Your task to perform on an android device: turn off data saver in the chrome app Image 0: 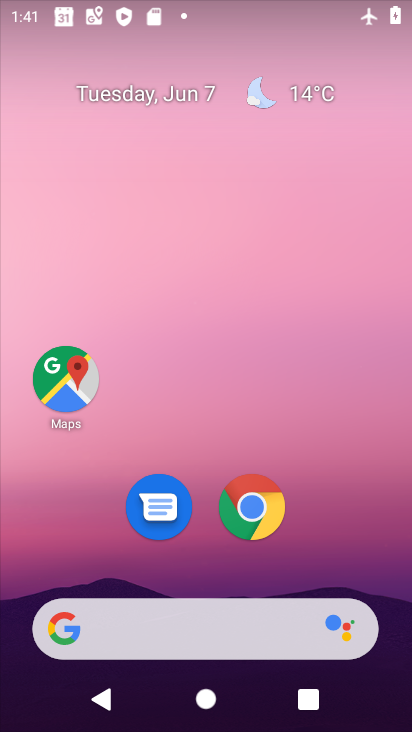
Step 0: click (257, 510)
Your task to perform on an android device: turn off data saver in the chrome app Image 1: 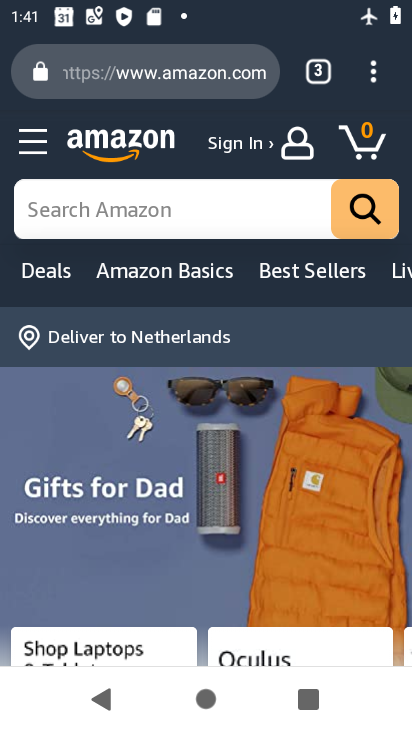
Step 1: click (371, 73)
Your task to perform on an android device: turn off data saver in the chrome app Image 2: 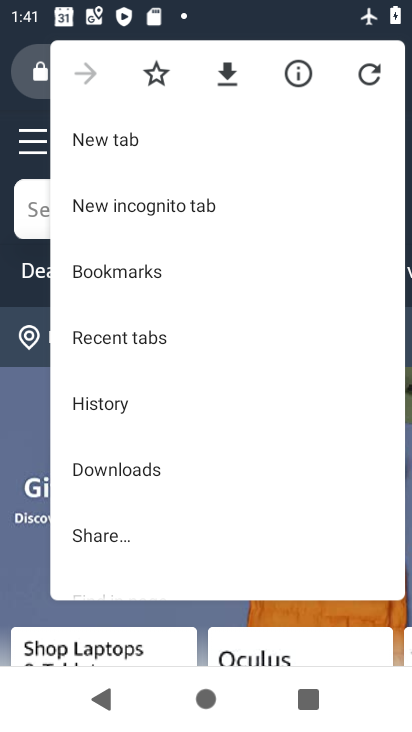
Step 2: drag from (208, 503) to (246, 160)
Your task to perform on an android device: turn off data saver in the chrome app Image 3: 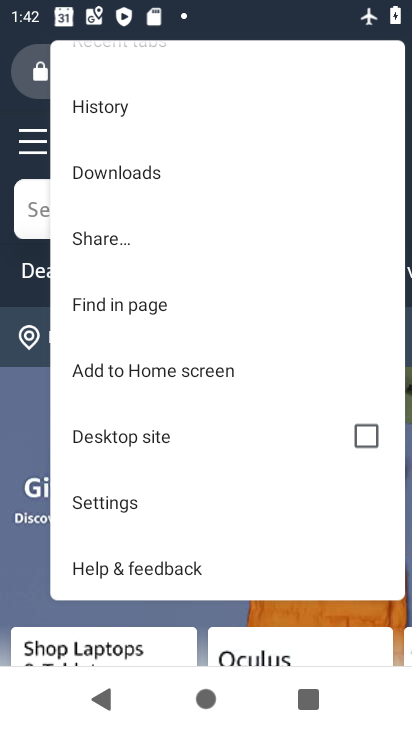
Step 3: click (124, 506)
Your task to perform on an android device: turn off data saver in the chrome app Image 4: 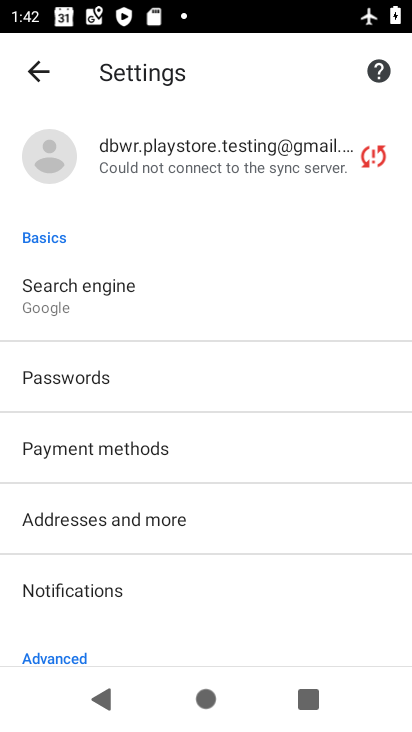
Step 4: drag from (214, 606) to (206, 226)
Your task to perform on an android device: turn off data saver in the chrome app Image 5: 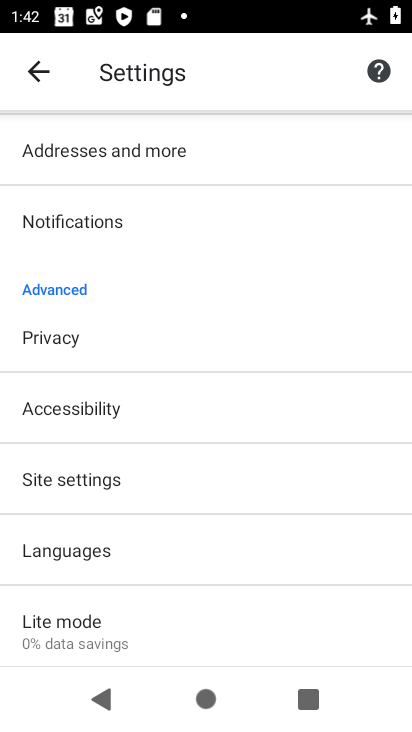
Step 5: click (98, 603)
Your task to perform on an android device: turn off data saver in the chrome app Image 6: 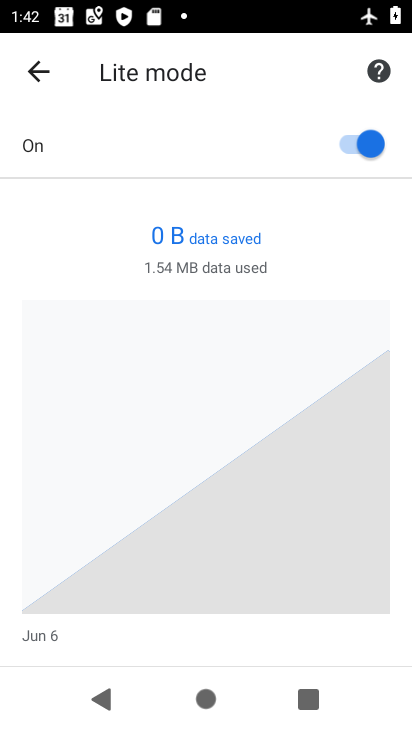
Step 6: click (342, 149)
Your task to perform on an android device: turn off data saver in the chrome app Image 7: 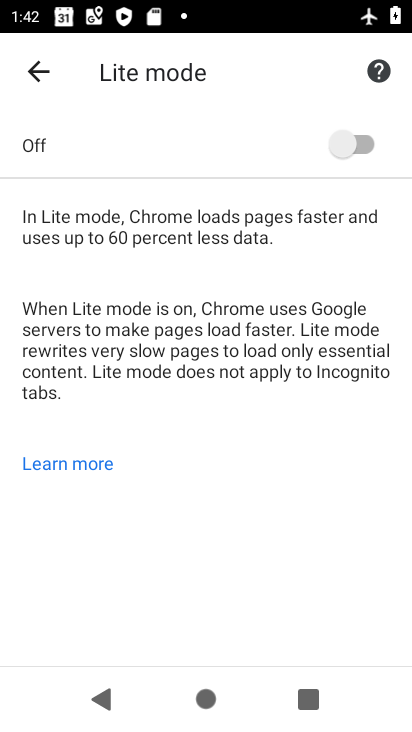
Step 7: task complete